Your task to perform on an android device: check out phone information Image 0: 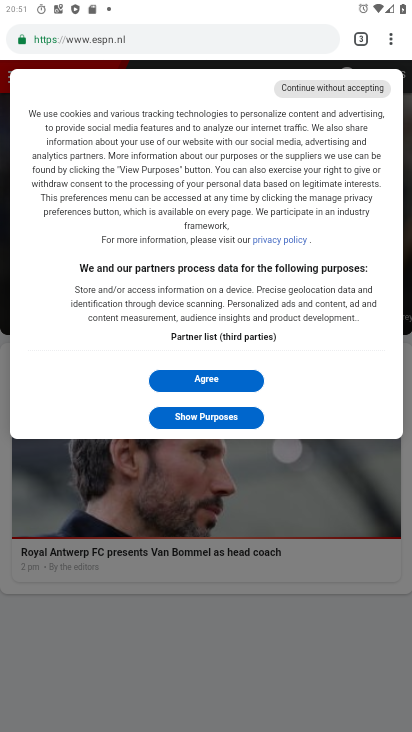
Step 0: press home button
Your task to perform on an android device: check out phone information Image 1: 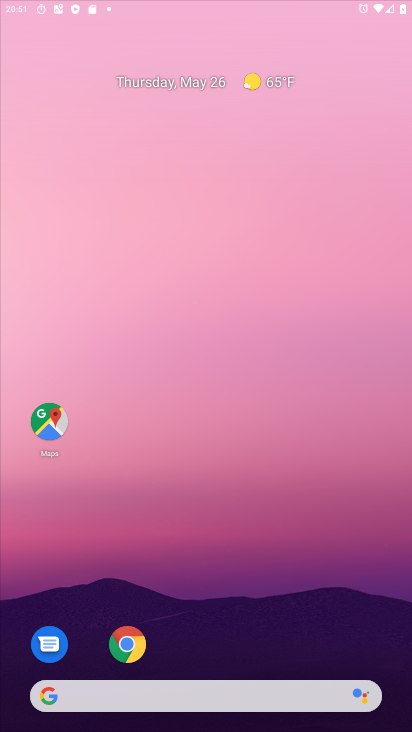
Step 1: drag from (170, 544) to (285, 10)
Your task to perform on an android device: check out phone information Image 2: 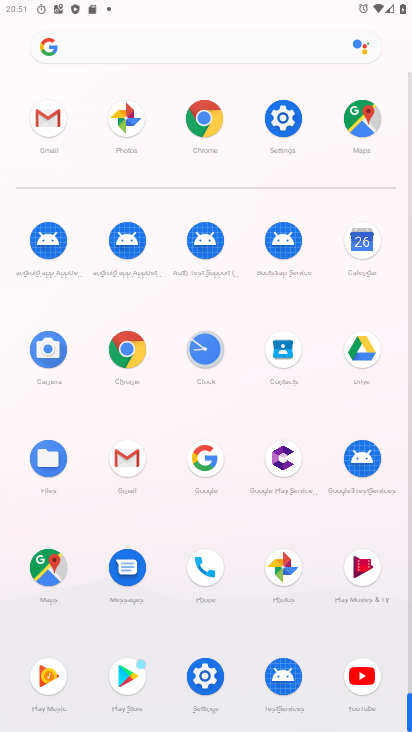
Step 2: click (282, 125)
Your task to perform on an android device: check out phone information Image 3: 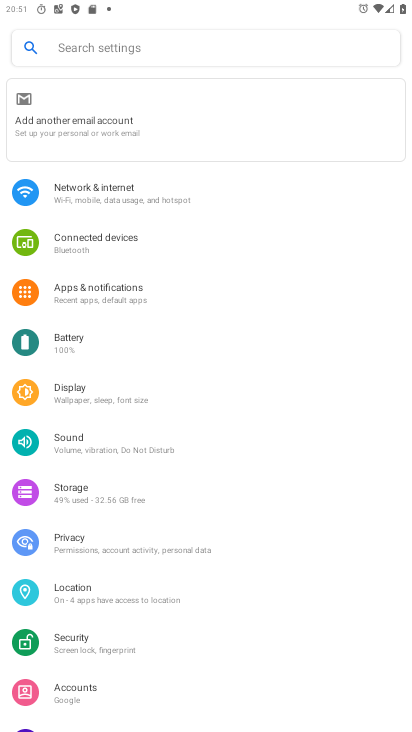
Step 3: drag from (158, 578) to (287, 38)
Your task to perform on an android device: check out phone information Image 4: 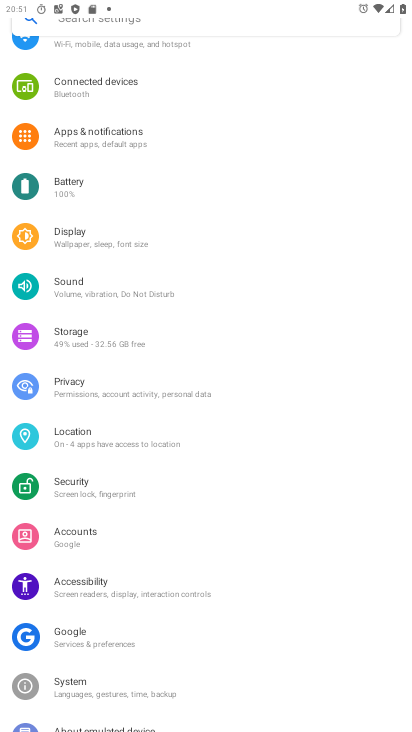
Step 4: click (114, 704)
Your task to perform on an android device: check out phone information Image 5: 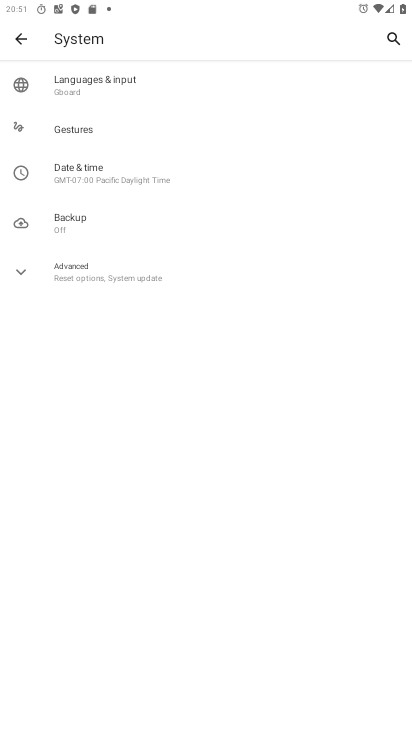
Step 5: press back button
Your task to perform on an android device: check out phone information Image 6: 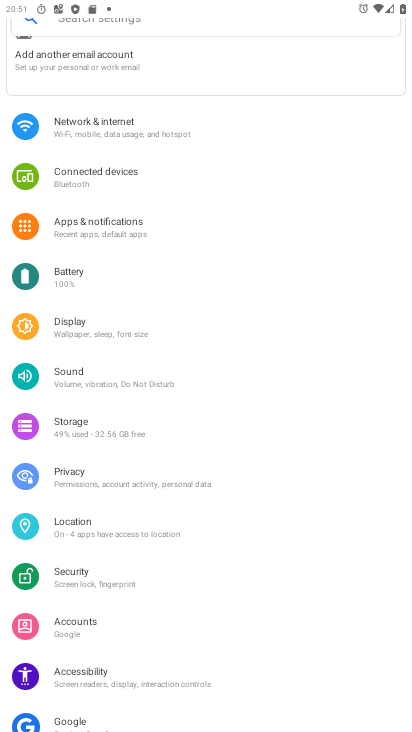
Step 6: drag from (167, 718) to (264, 90)
Your task to perform on an android device: check out phone information Image 7: 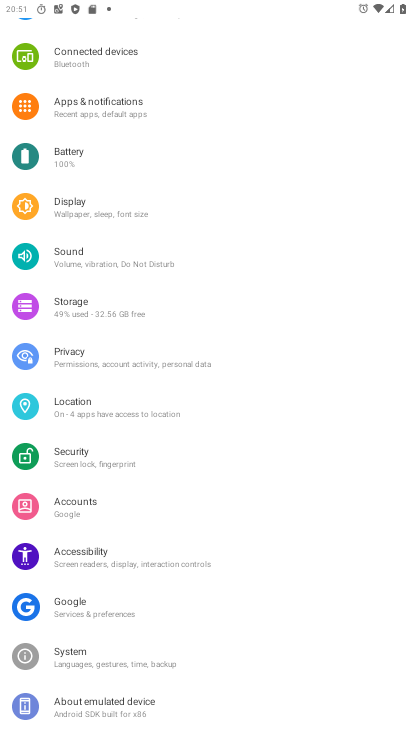
Step 7: drag from (149, 622) to (220, 137)
Your task to perform on an android device: check out phone information Image 8: 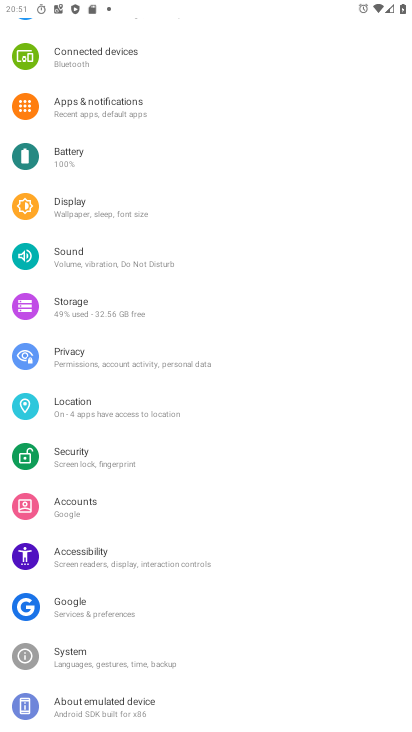
Step 8: click (128, 712)
Your task to perform on an android device: check out phone information Image 9: 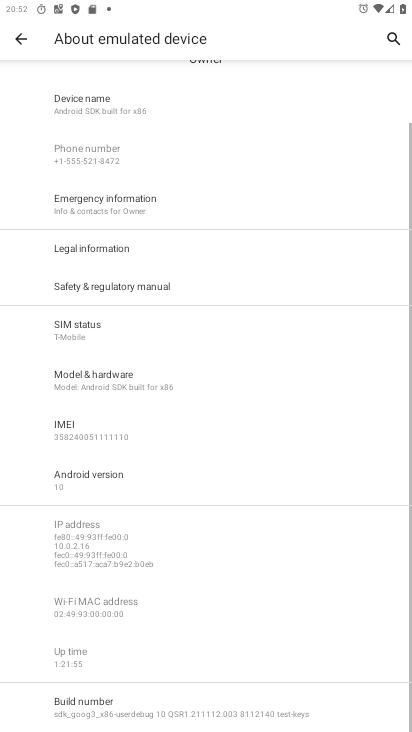
Step 9: task complete